Your task to perform on an android device: Clear the cart on costco. Add "logitech g933" to the cart on costco, then select checkout. Image 0: 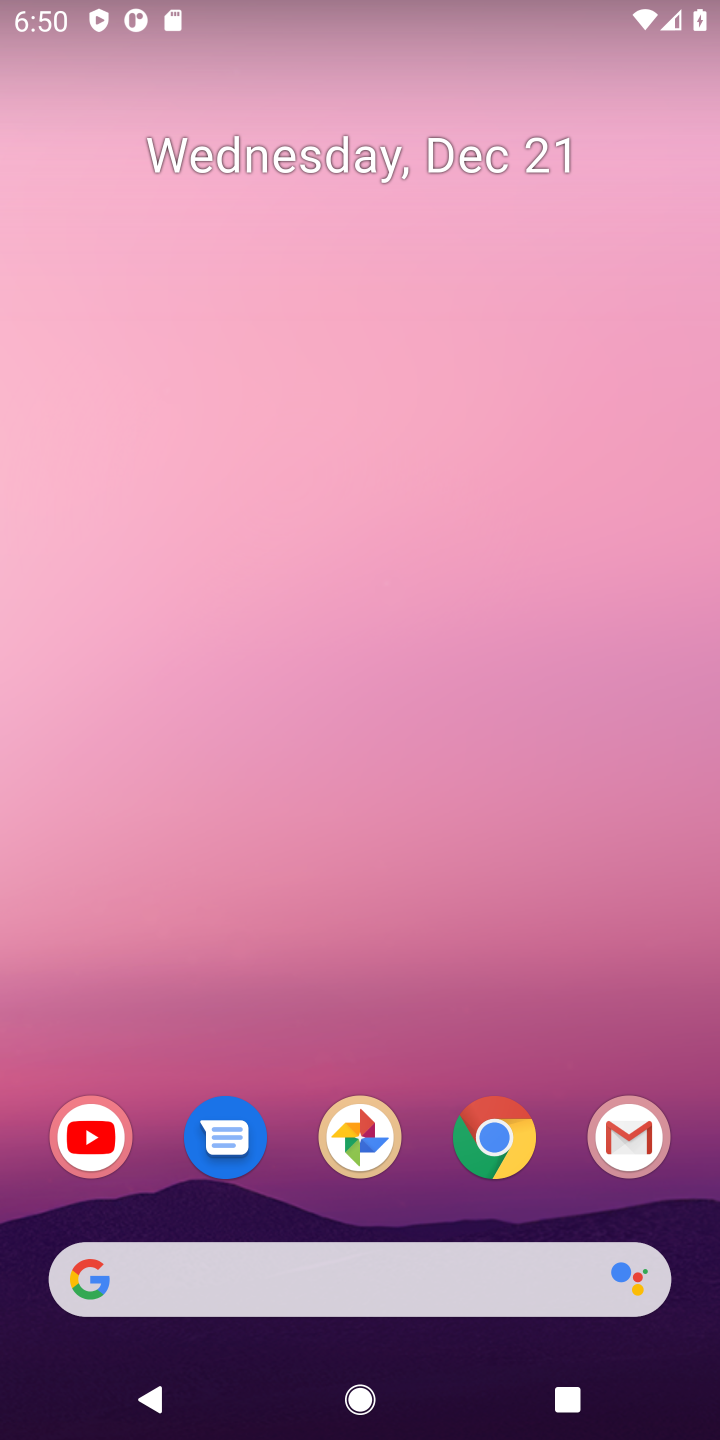
Step 0: click (481, 1146)
Your task to perform on an android device: Clear the cart on costco. Add "logitech g933" to the cart on costco, then select checkout. Image 1: 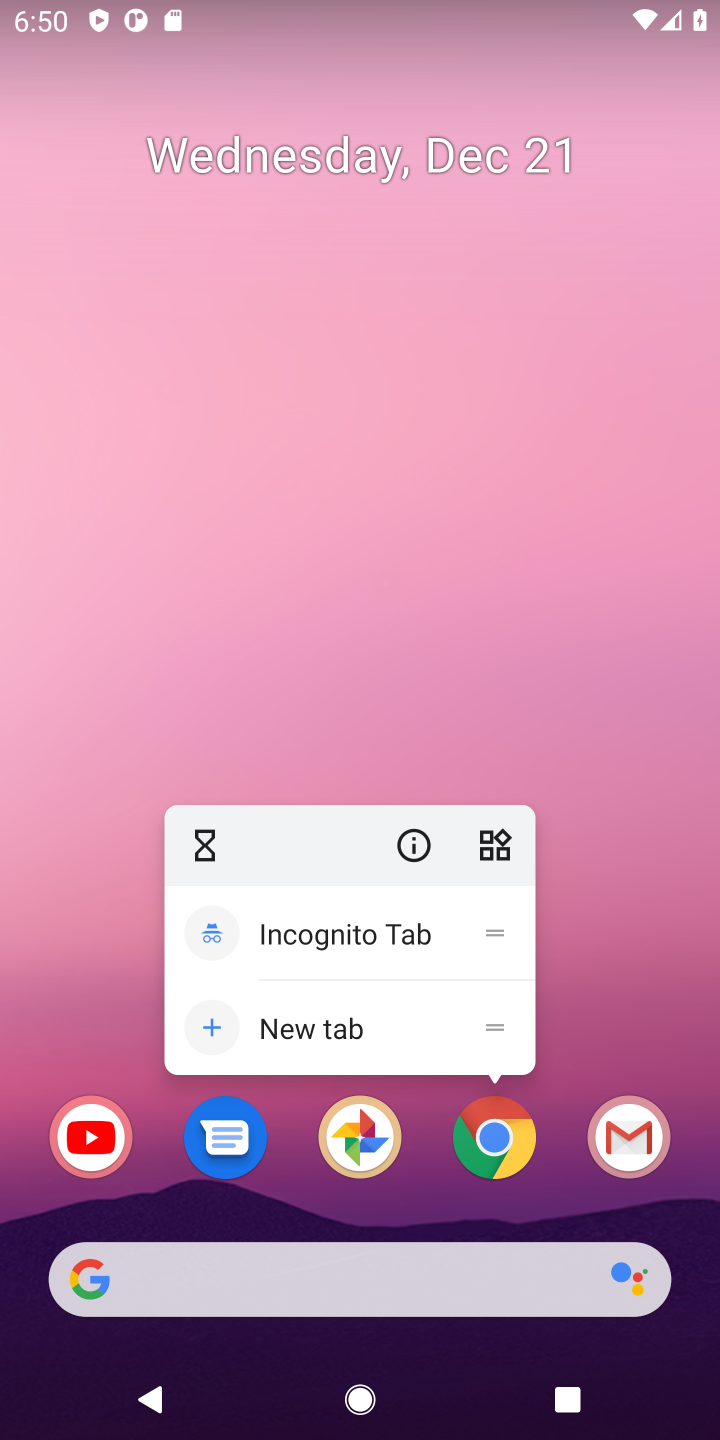
Step 1: click (481, 1146)
Your task to perform on an android device: Clear the cart on costco. Add "logitech g933" to the cart on costco, then select checkout. Image 2: 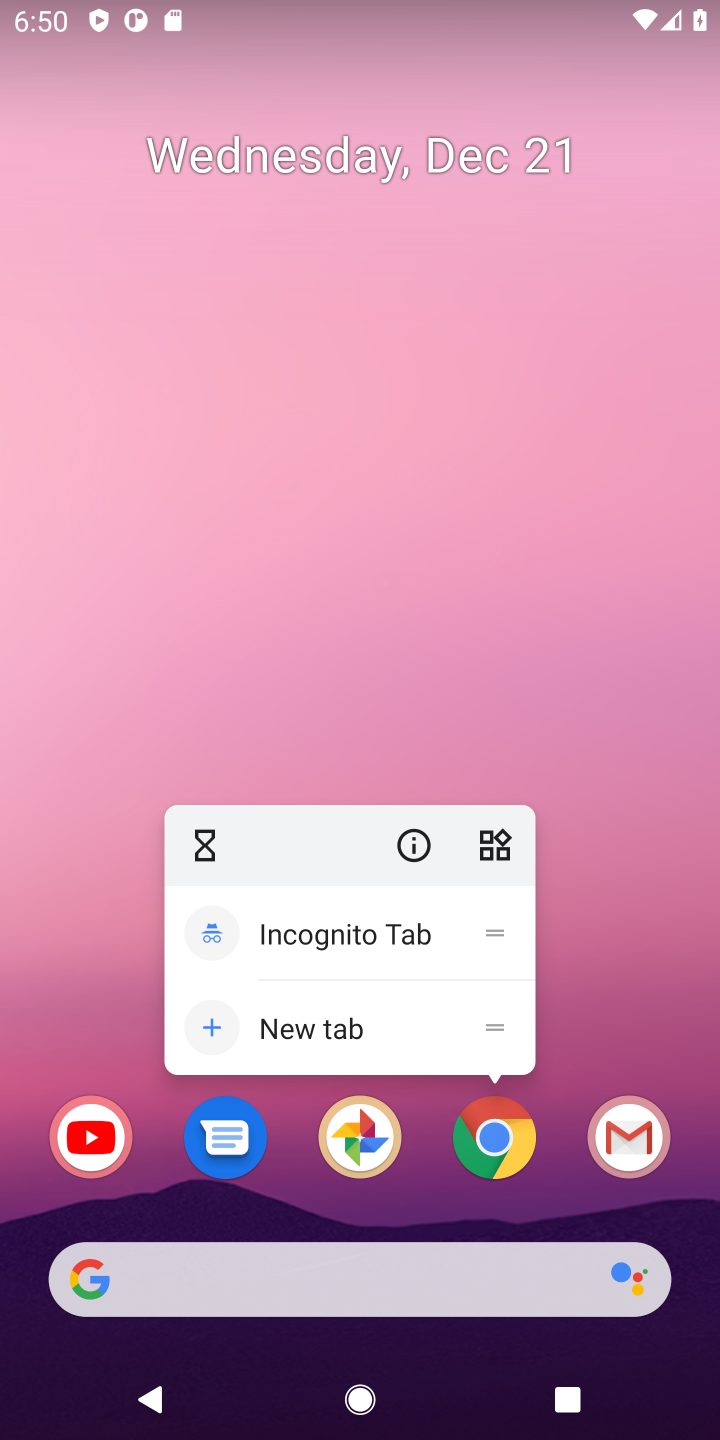
Step 2: click (485, 1142)
Your task to perform on an android device: Clear the cart on costco. Add "logitech g933" to the cart on costco, then select checkout. Image 3: 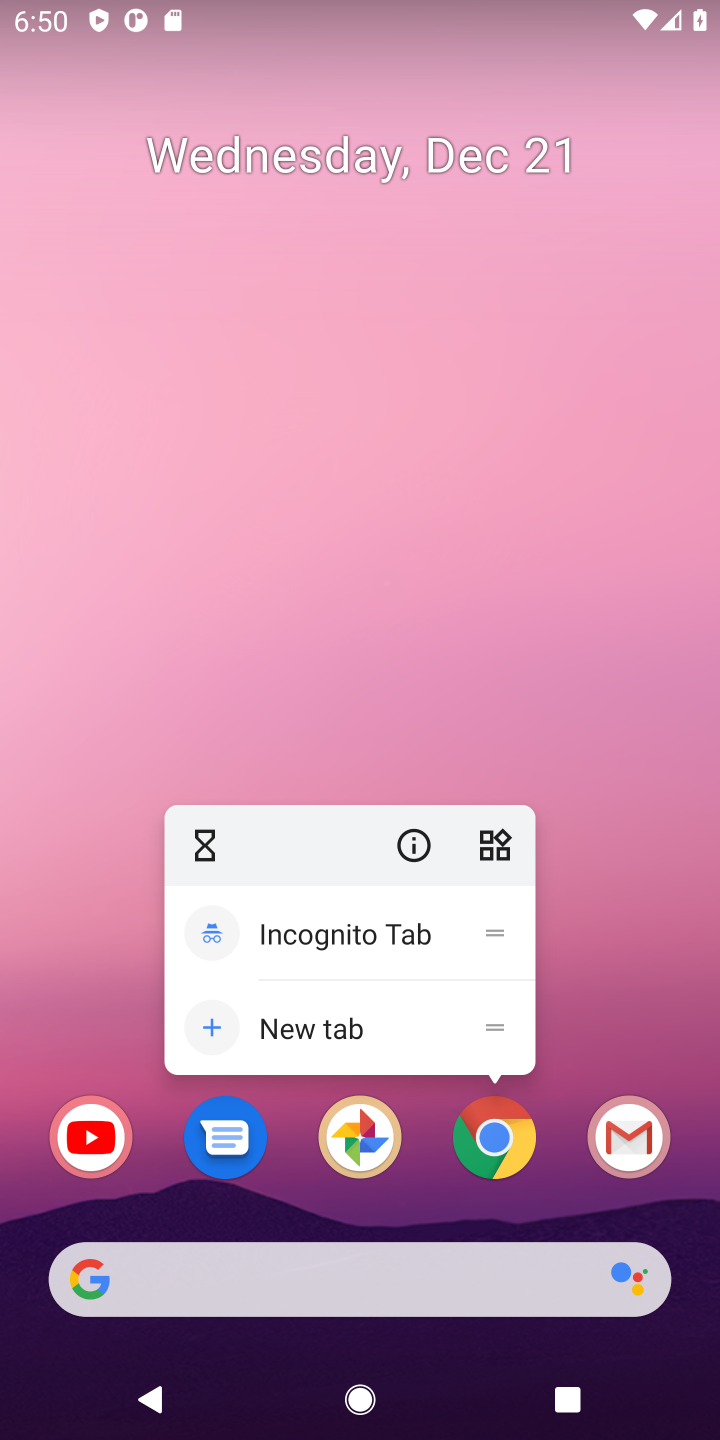
Step 3: click (485, 1142)
Your task to perform on an android device: Clear the cart on costco. Add "logitech g933" to the cart on costco, then select checkout. Image 4: 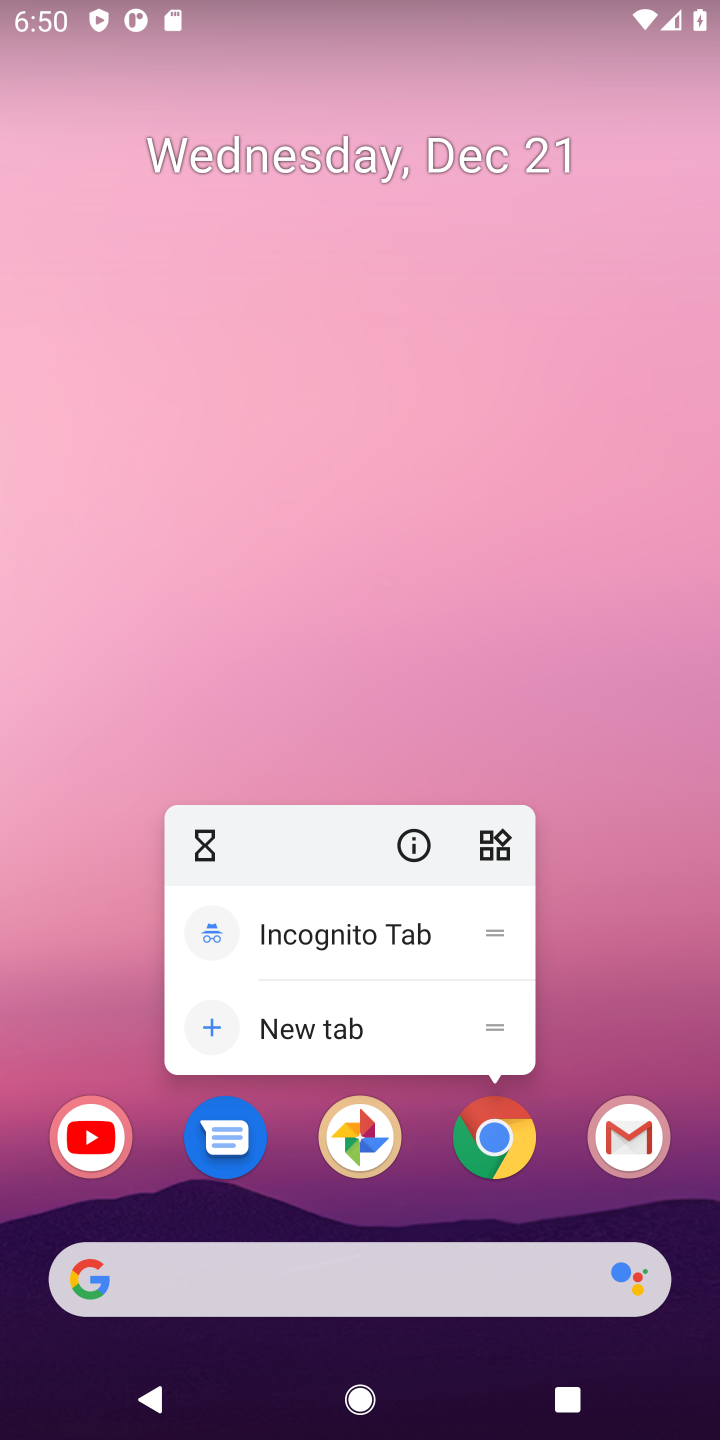
Step 4: click (485, 1142)
Your task to perform on an android device: Clear the cart on costco. Add "logitech g933" to the cart on costco, then select checkout. Image 5: 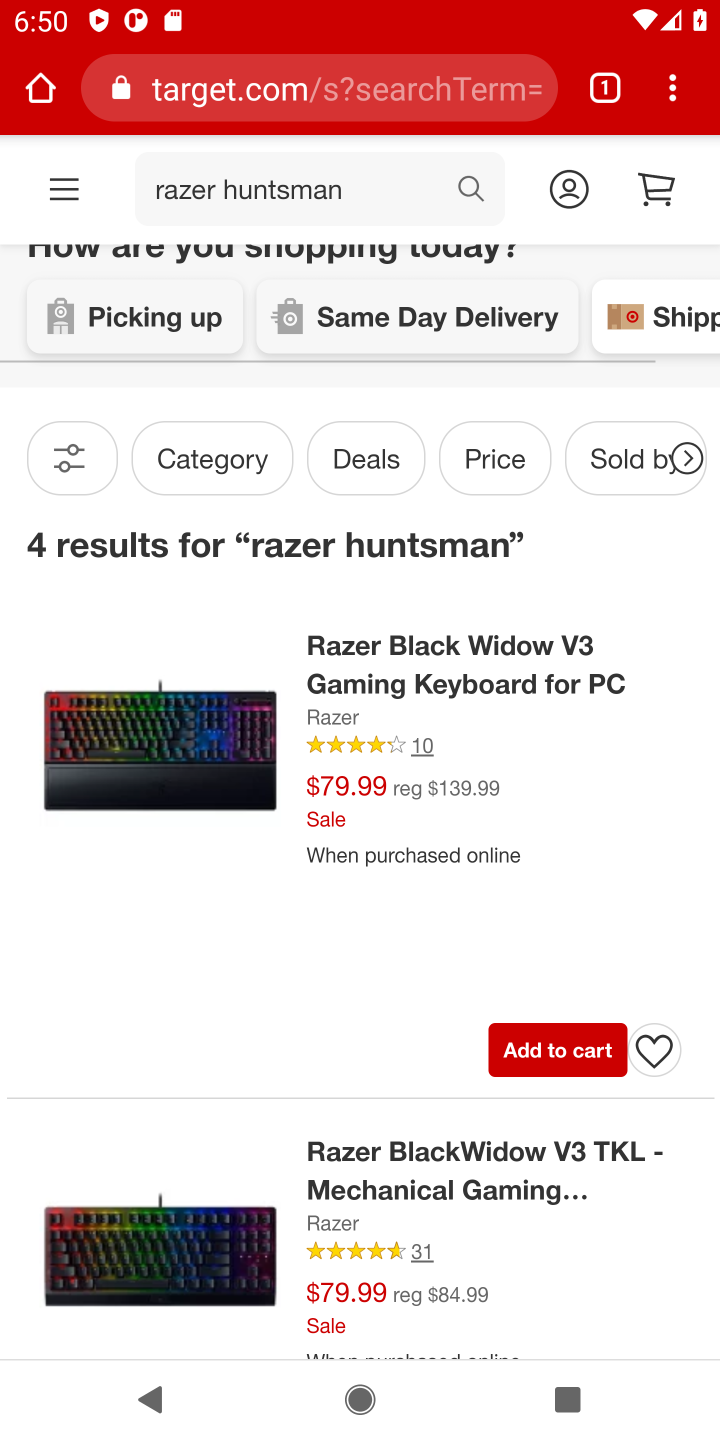
Step 5: click (255, 91)
Your task to perform on an android device: Clear the cart on costco. Add "logitech g933" to the cart on costco, then select checkout. Image 6: 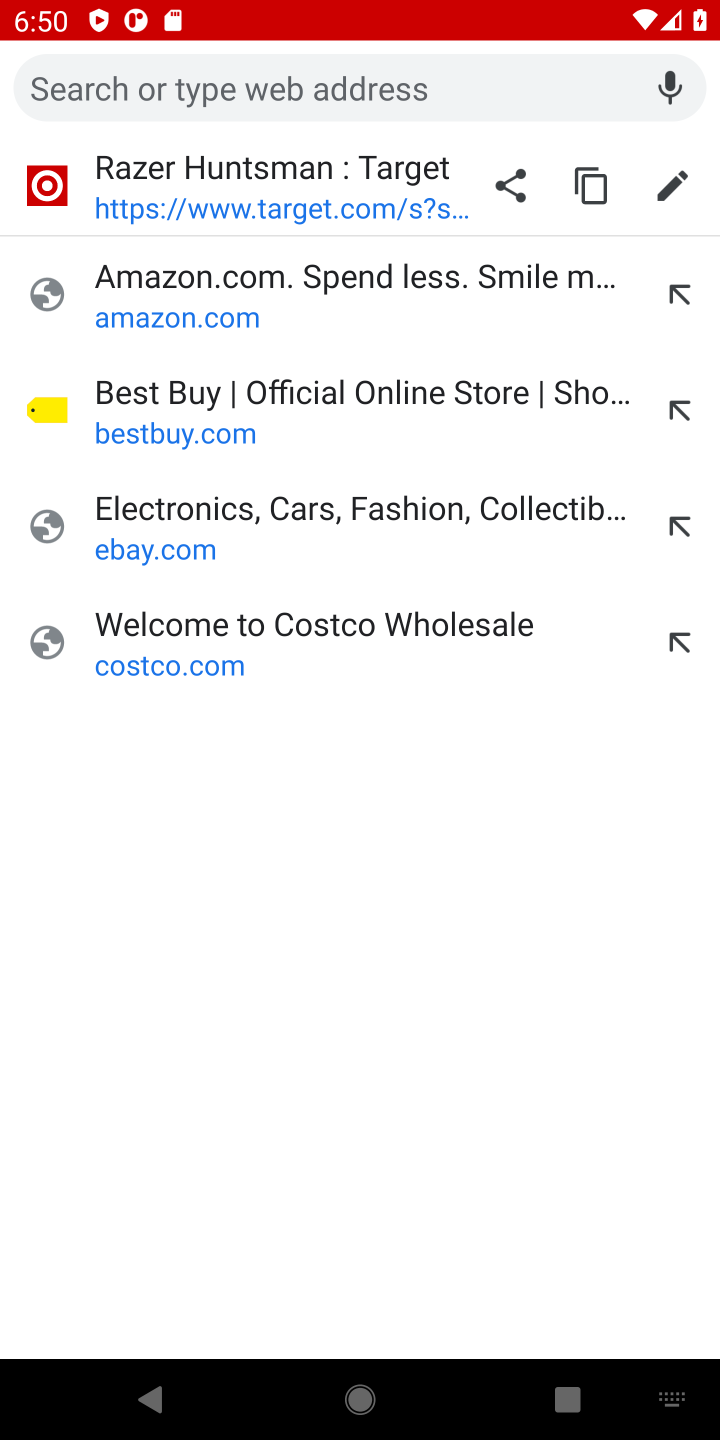
Step 6: click (138, 636)
Your task to perform on an android device: Clear the cart on costco. Add "logitech g933" to the cart on costco, then select checkout. Image 7: 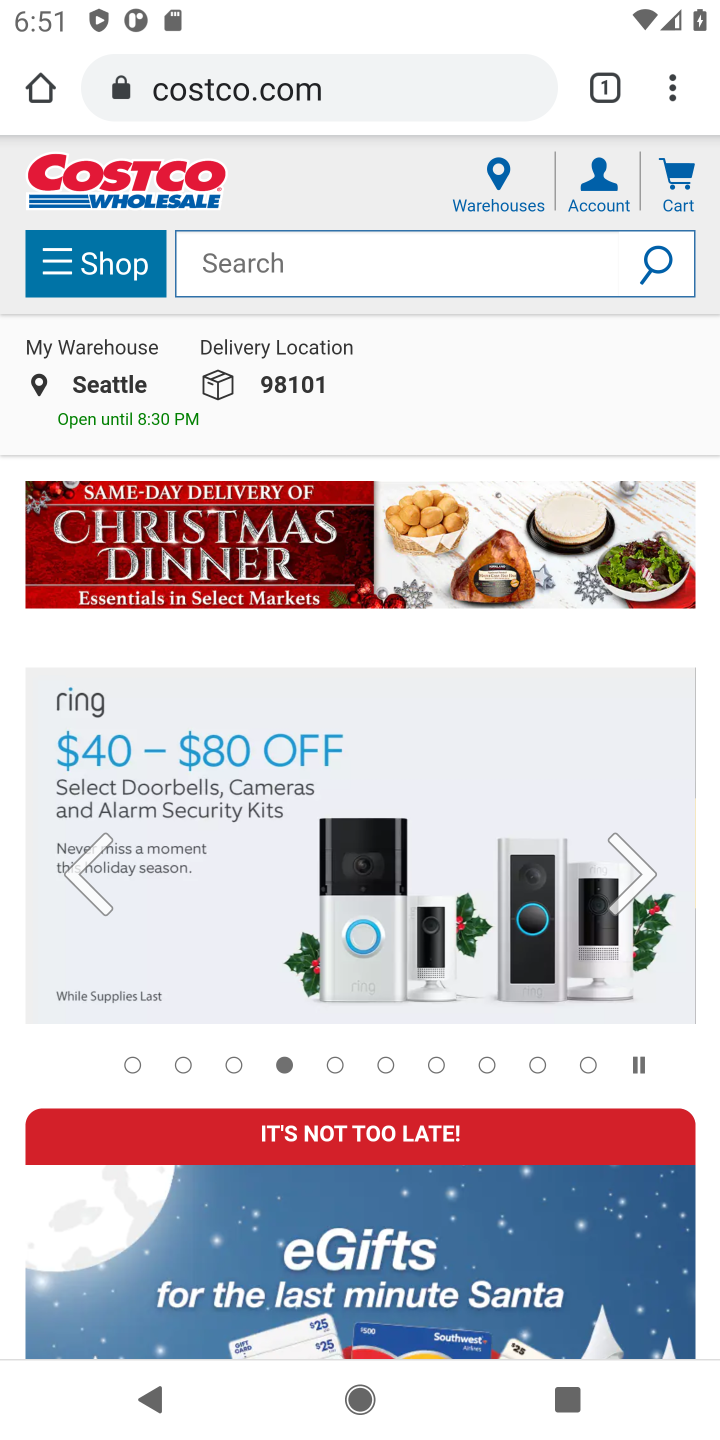
Step 7: click (686, 201)
Your task to perform on an android device: Clear the cart on costco. Add "logitech g933" to the cart on costco, then select checkout. Image 8: 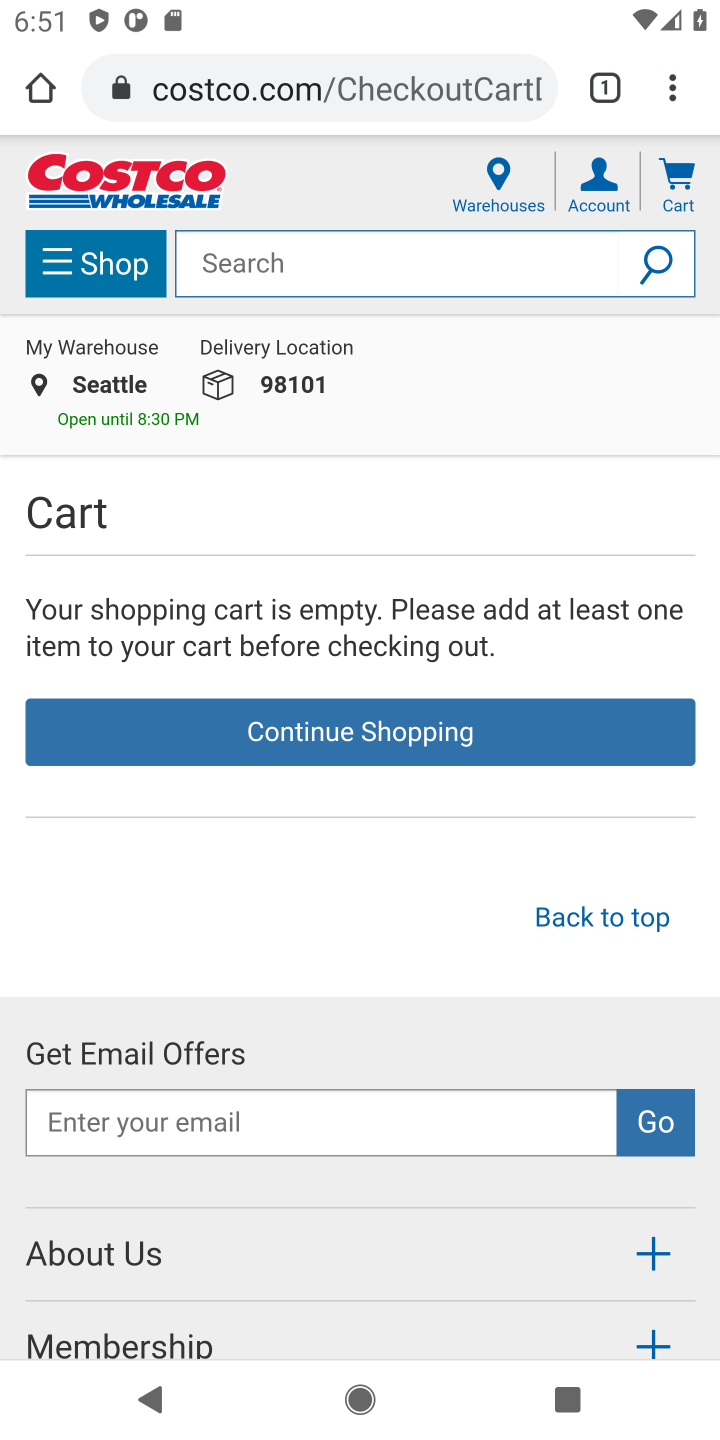
Step 8: click (271, 273)
Your task to perform on an android device: Clear the cart on costco. Add "logitech g933" to the cart on costco, then select checkout. Image 9: 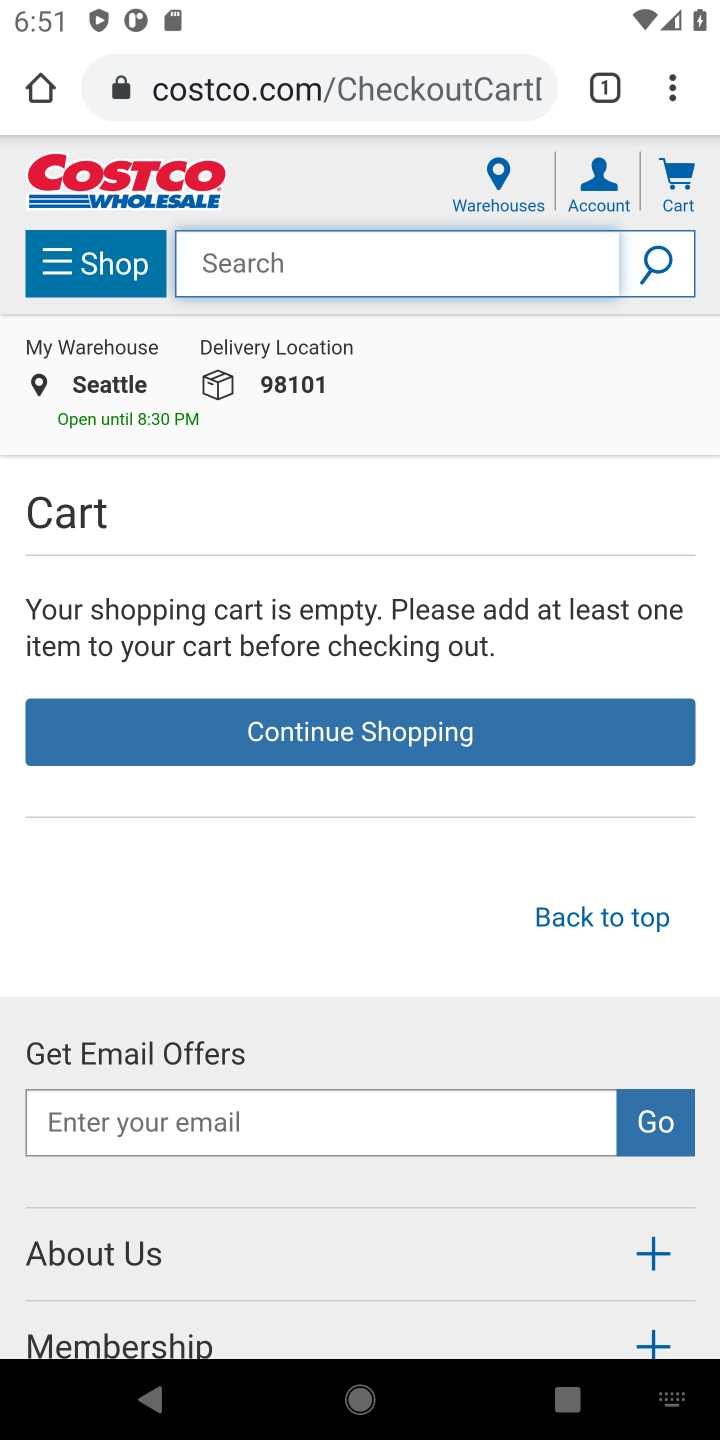
Step 9: type "logitech g933"
Your task to perform on an android device: Clear the cart on costco. Add "logitech g933" to the cart on costco, then select checkout. Image 10: 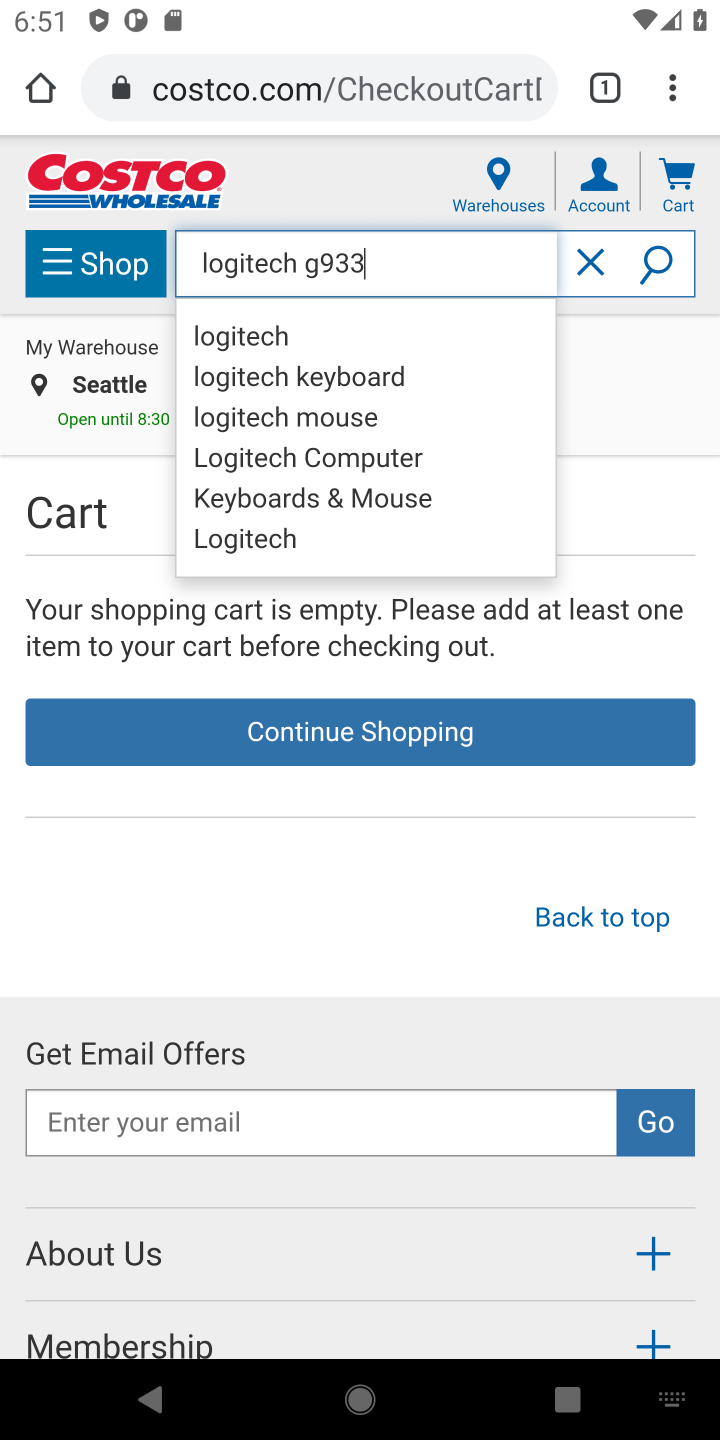
Step 10: click (639, 269)
Your task to perform on an android device: Clear the cart on costco. Add "logitech g933" to the cart on costco, then select checkout. Image 11: 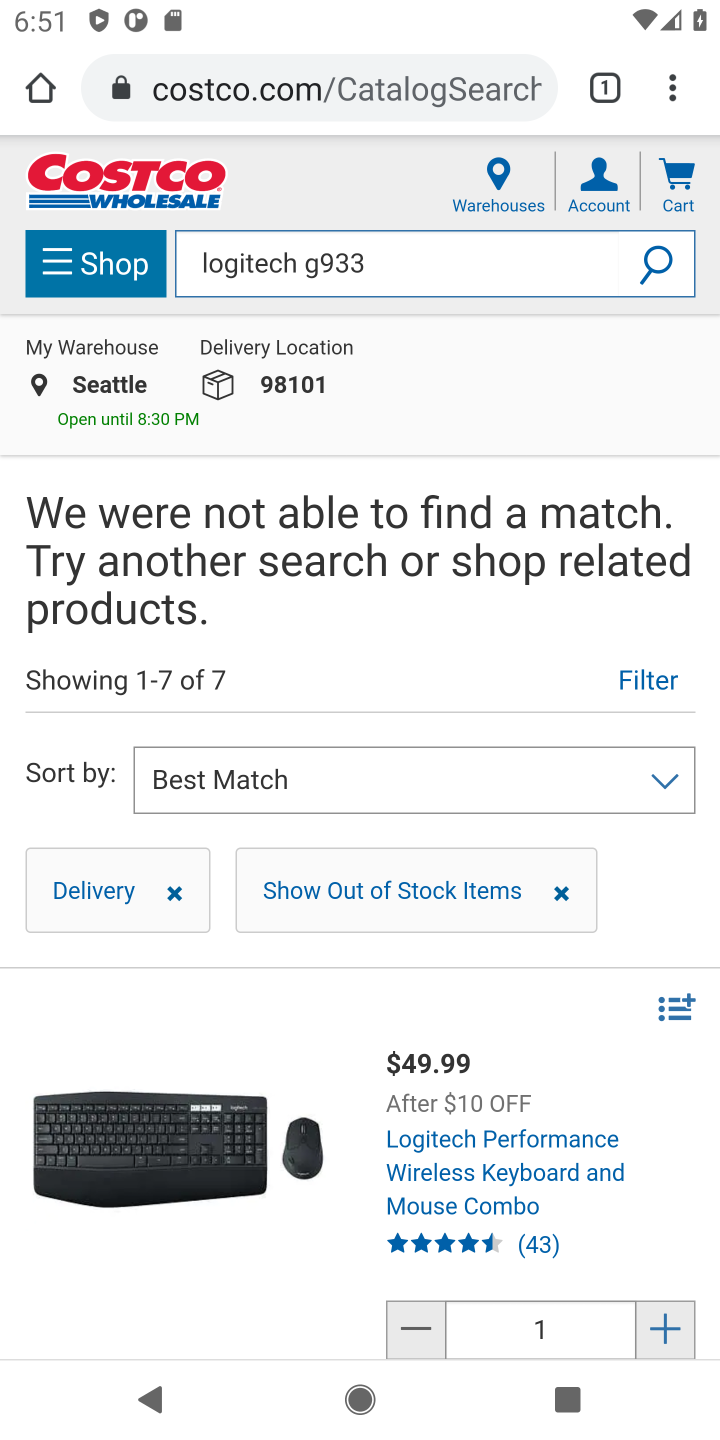
Step 11: task complete